Your task to perform on an android device: Open calendar and show me the third week of next month Image 0: 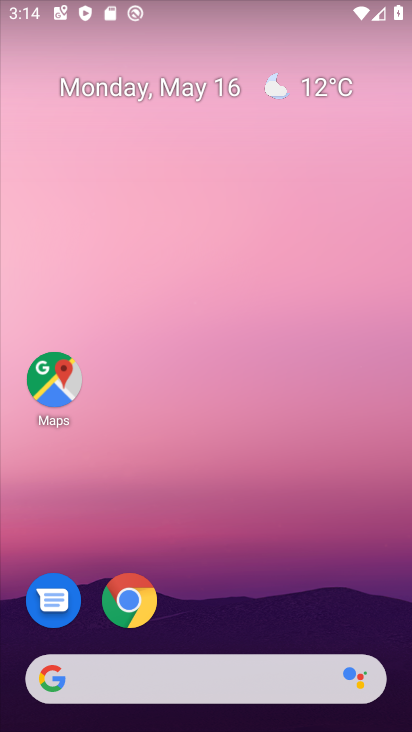
Step 0: drag from (229, 648) to (206, 60)
Your task to perform on an android device: Open calendar and show me the third week of next month Image 1: 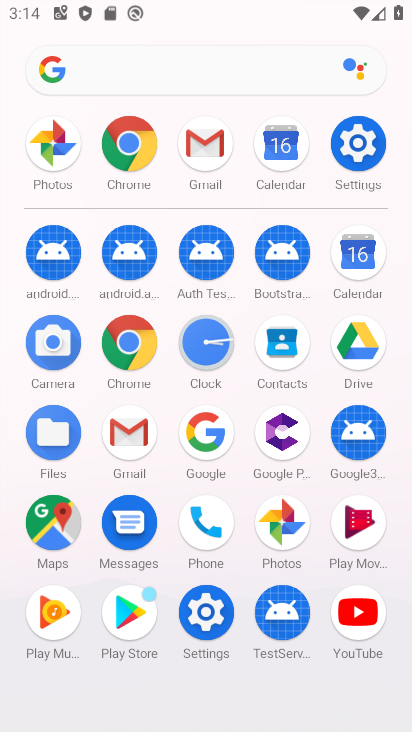
Step 1: click (354, 251)
Your task to perform on an android device: Open calendar and show me the third week of next month Image 2: 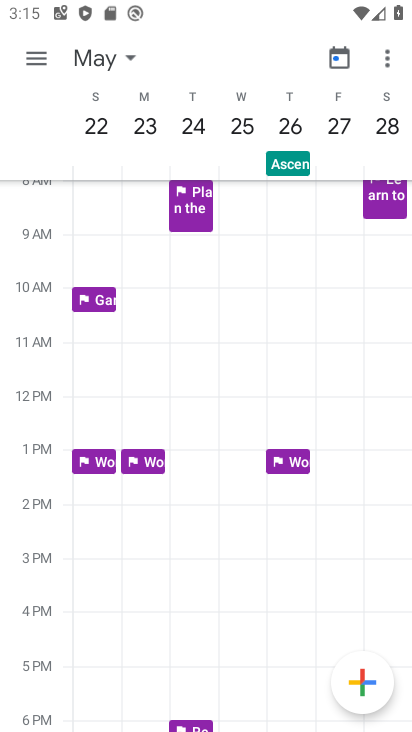
Step 2: task complete